Your task to perform on an android device: turn off priority inbox in the gmail app Image 0: 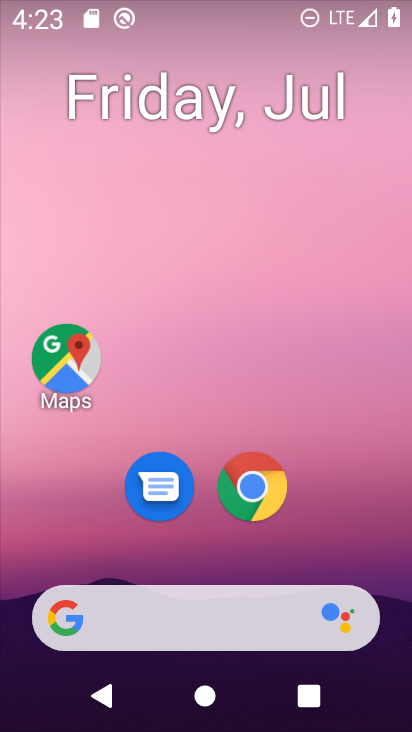
Step 0: drag from (160, 548) to (263, 4)
Your task to perform on an android device: turn off priority inbox in the gmail app Image 1: 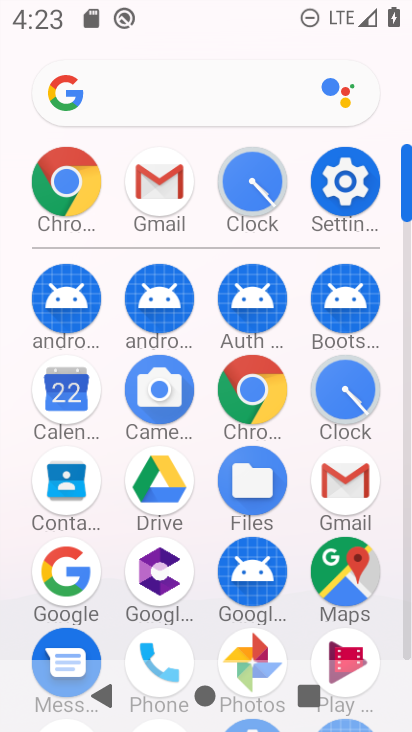
Step 1: click (156, 184)
Your task to perform on an android device: turn off priority inbox in the gmail app Image 2: 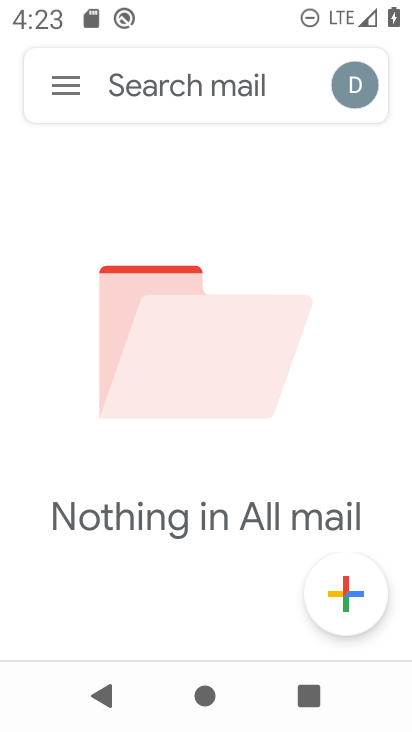
Step 2: click (57, 94)
Your task to perform on an android device: turn off priority inbox in the gmail app Image 3: 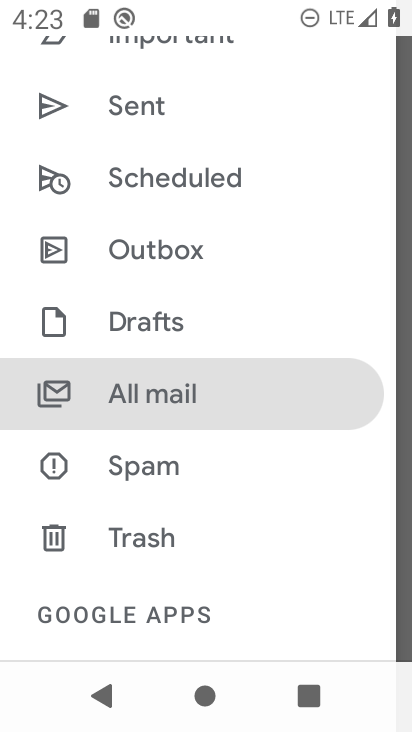
Step 3: drag from (214, 134) to (161, 585)
Your task to perform on an android device: turn off priority inbox in the gmail app Image 4: 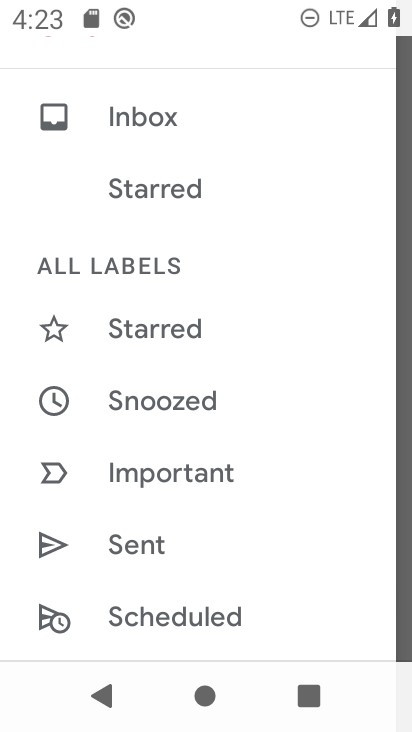
Step 4: drag from (164, 171) to (266, 53)
Your task to perform on an android device: turn off priority inbox in the gmail app Image 5: 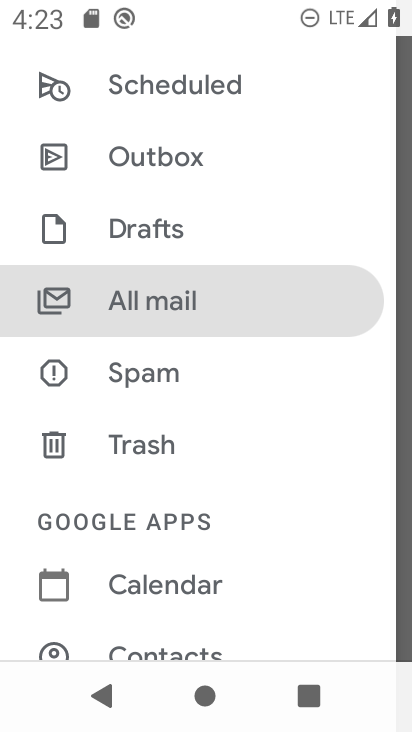
Step 5: drag from (135, 545) to (210, 76)
Your task to perform on an android device: turn off priority inbox in the gmail app Image 6: 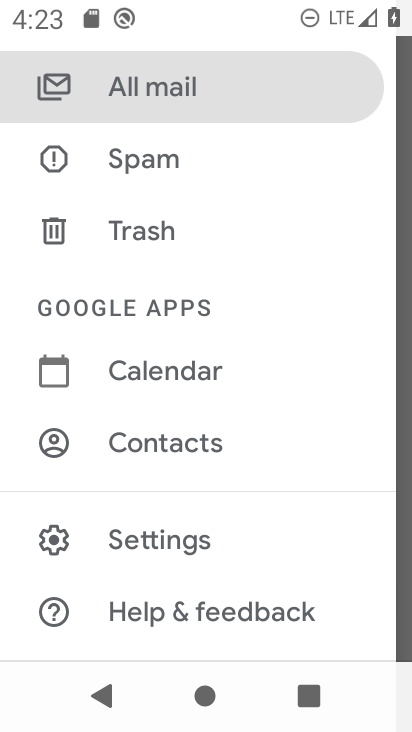
Step 6: click (142, 537)
Your task to perform on an android device: turn off priority inbox in the gmail app Image 7: 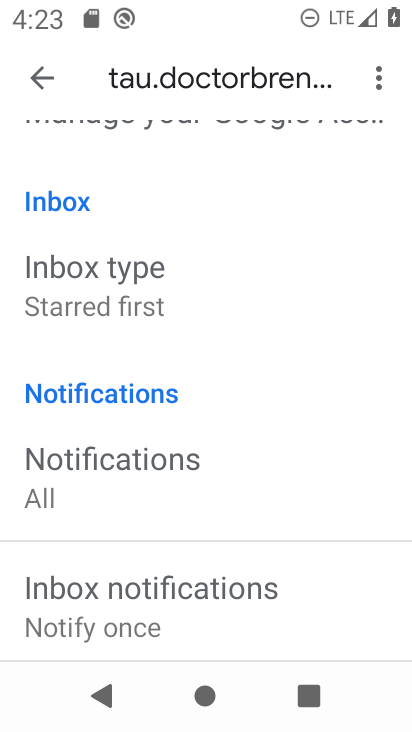
Step 7: drag from (192, 241) to (150, 684)
Your task to perform on an android device: turn off priority inbox in the gmail app Image 8: 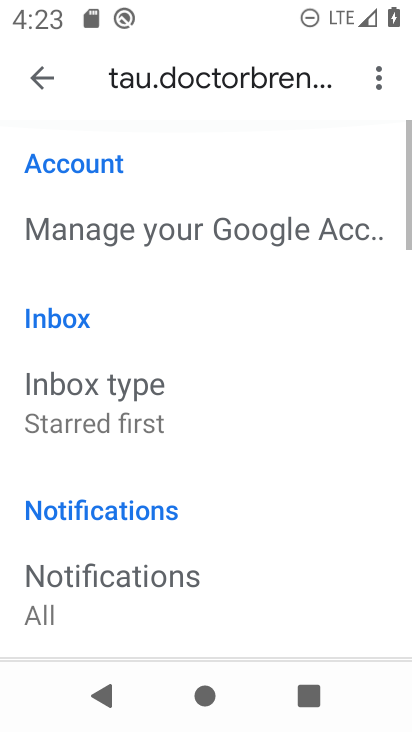
Step 8: click (113, 416)
Your task to perform on an android device: turn off priority inbox in the gmail app Image 9: 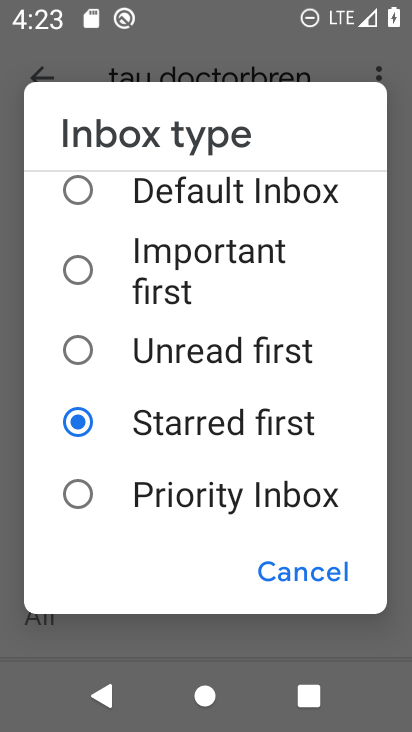
Step 9: task complete